Your task to perform on an android device: Search for flights from Buenos aires to Seoul Image 0: 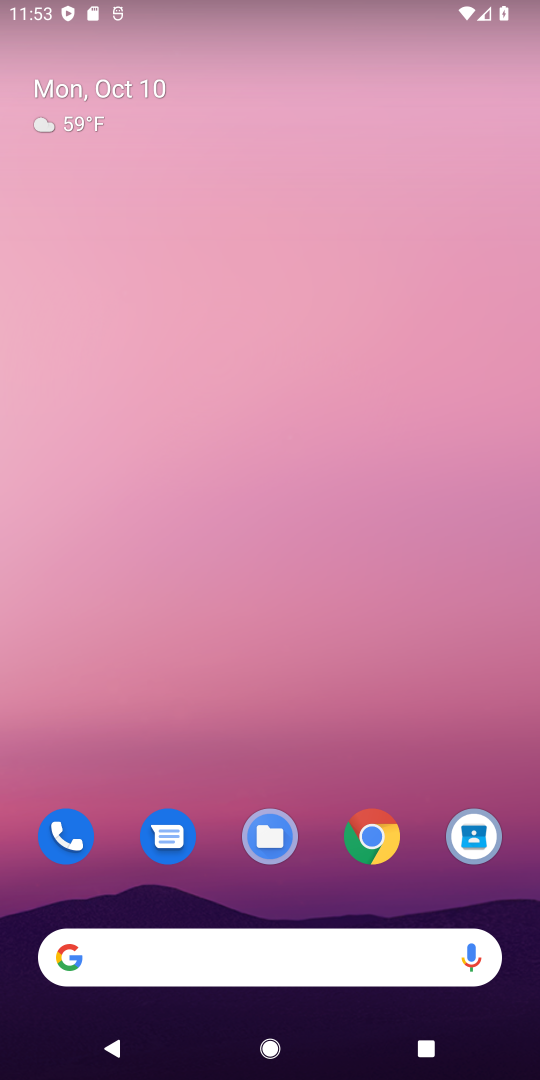
Step 0: click (378, 835)
Your task to perform on an android device: Search for flights from Buenos aires to Seoul Image 1: 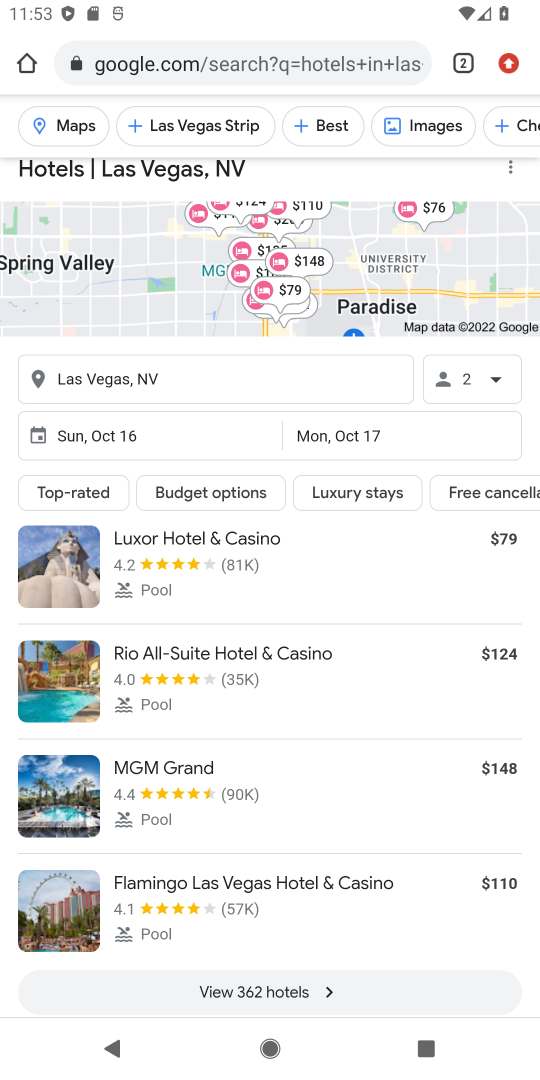
Step 1: click (323, 62)
Your task to perform on an android device: Search for flights from Buenos aires to Seoul Image 2: 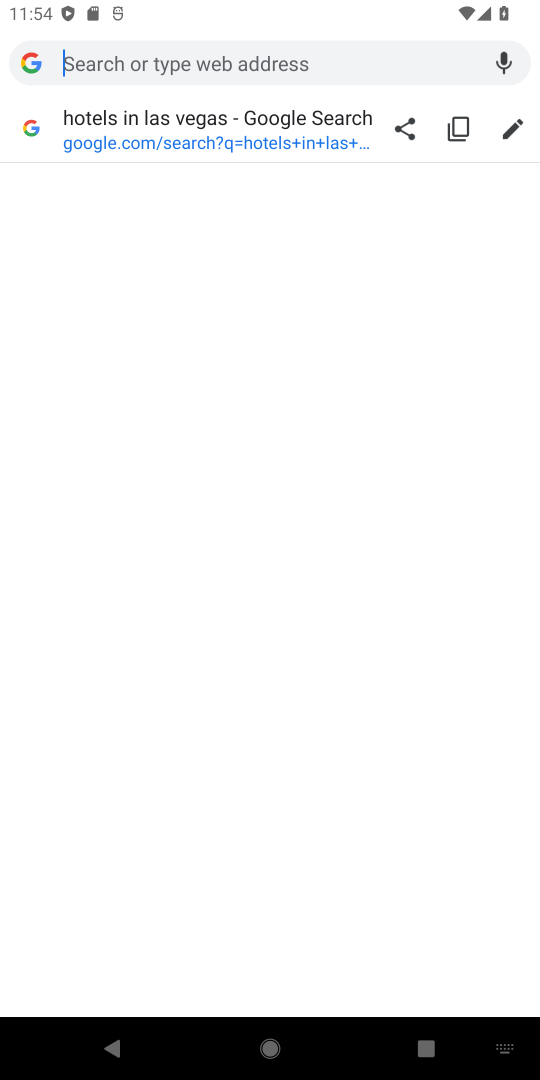
Step 2: type "buenos aires to seoul flights"
Your task to perform on an android device: Search for flights from Buenos aires to Seoul Image 3: 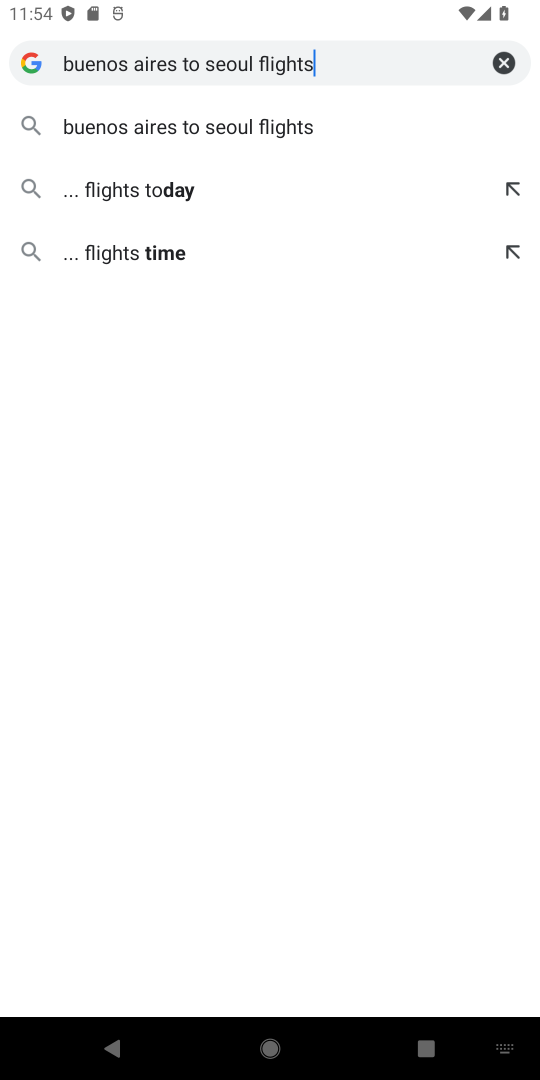
Step 3: click (249, 124)
Your task to perform on an android device: Search for flights from Buenos aires to Seoul Image 4: 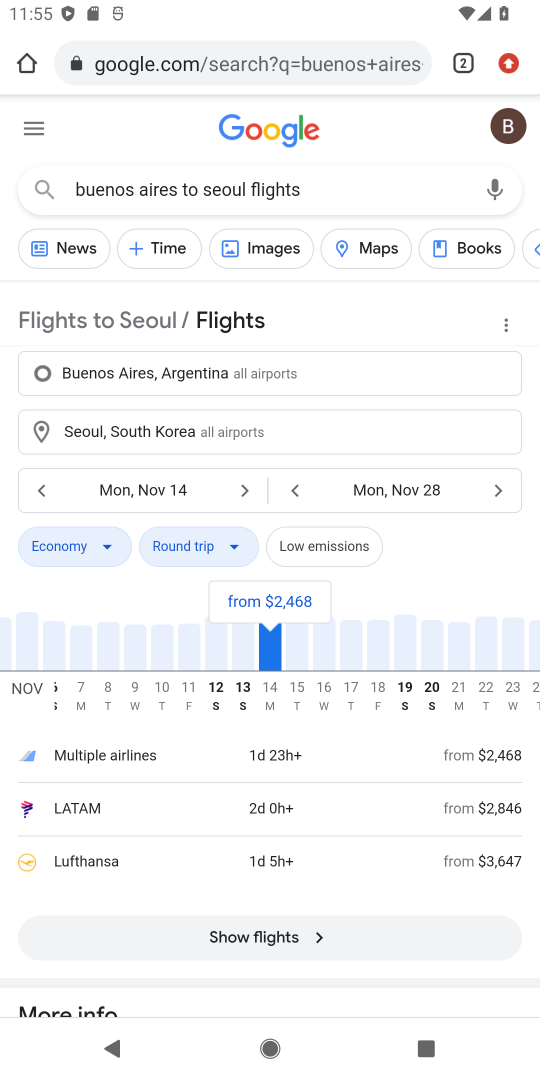
Step 4: task complete